Your task to perform on an android device: Open Chrome and go to the settings page Image 0: 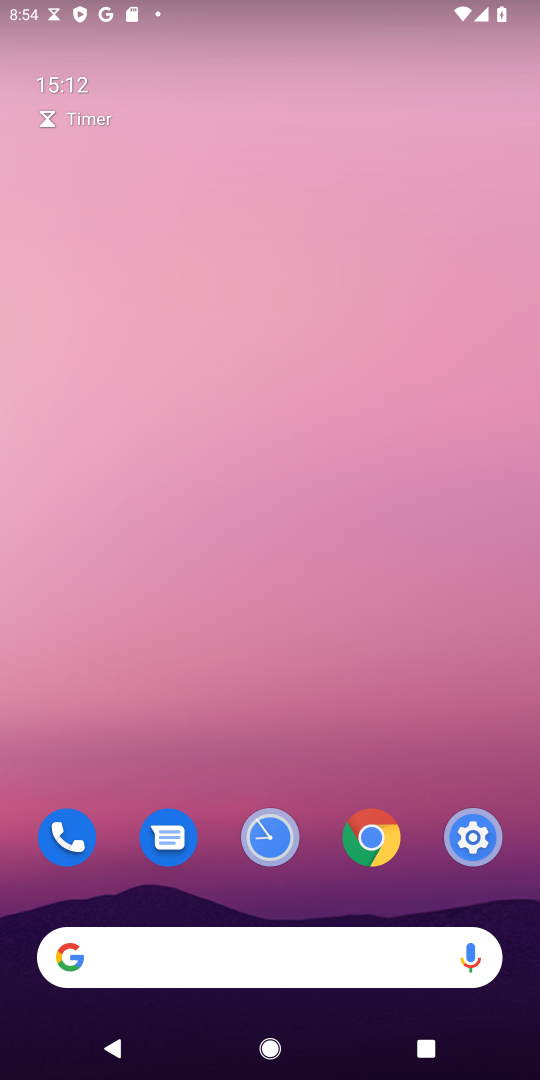
Step 0: click (374, 842)
Your task to perform on an android device: Open Chrome and go to the settings page Image 1: 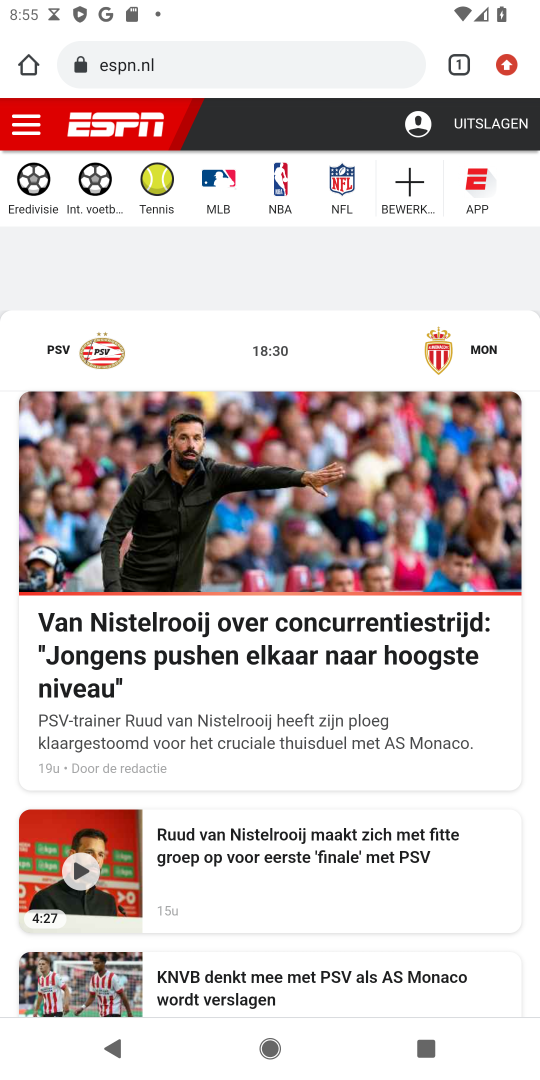
Step 1: task complete